Your task to perform on an android device: turn off smart reply in the gmail app Image 0: 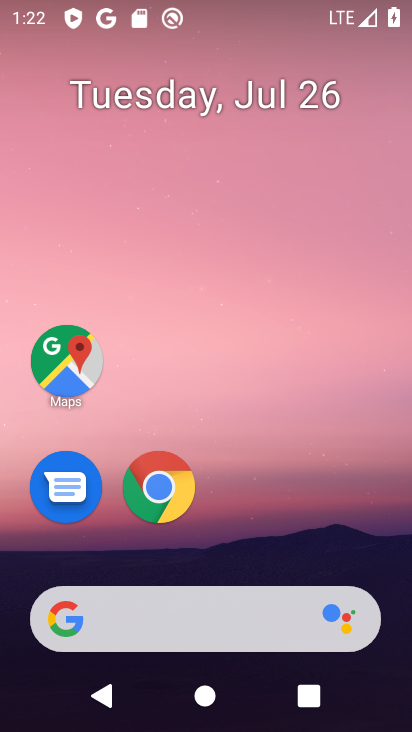
Step 0: drag from (123, 641) to (94, 3)
Your task to perform on an android device: turn off smart reply in the gmail app Image 1: 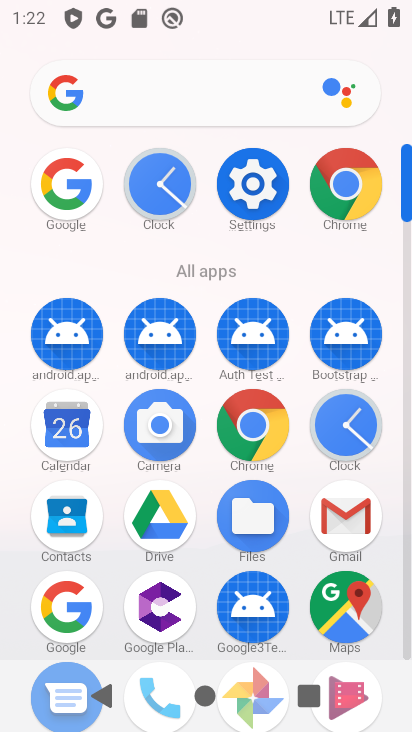
Step 1: click (341, 514)
Your task to perform on an android device: turn off smart reply in the gmail app Image 2: 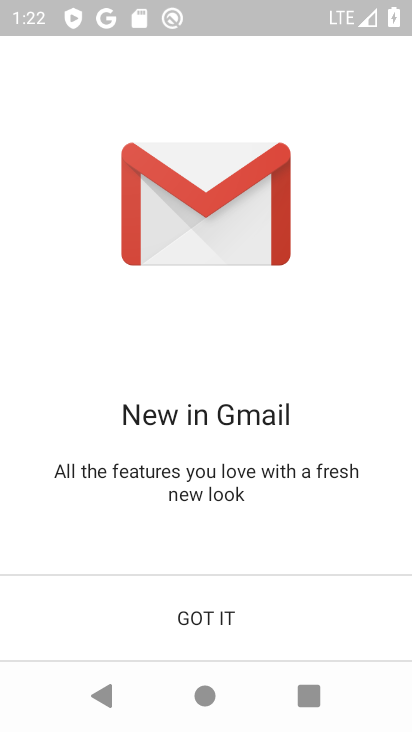
Step 2: click (265, 622)
Your task to perform on an android device: turn off smart reply in the gmail app Image 3: 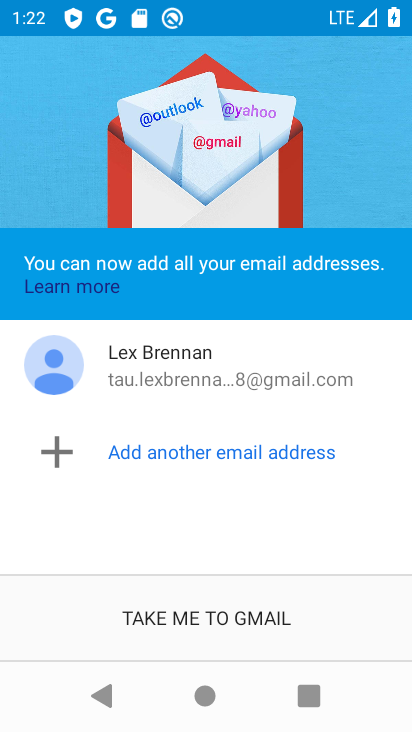
Step 3: click (264, 628)
Your task to perform on an android device: turn off smart reply in the gmail app Image 4: 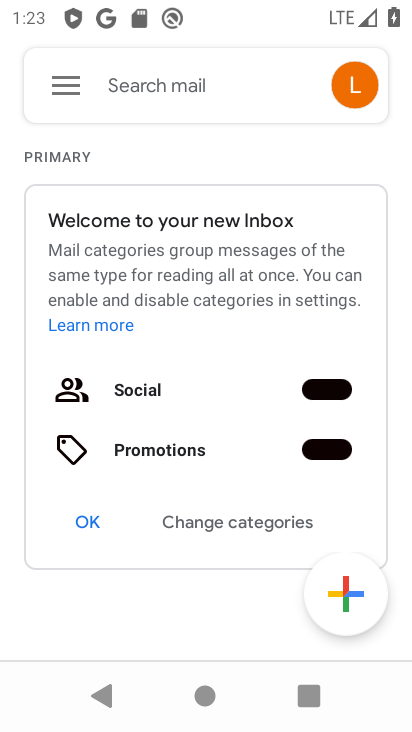
Step 4: click (73, 95)
Your task to perform on an android device: turn off smart reply in the gmail app Image 5: 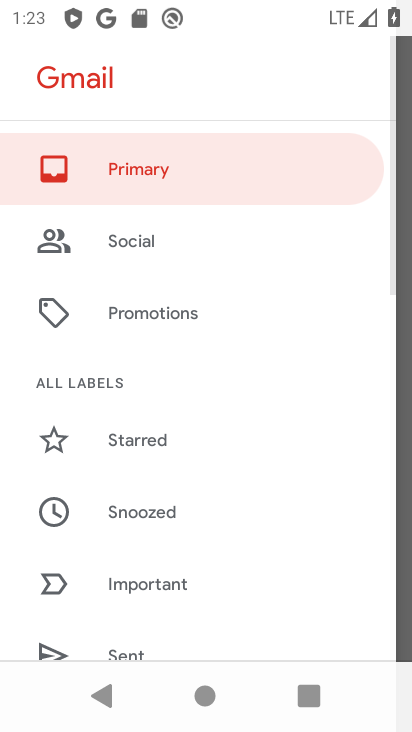
Step 5: drag from (165, 539) to (185, 203)
Your task to perform on an android device: turn off smart reply in the gmail app Image 6: 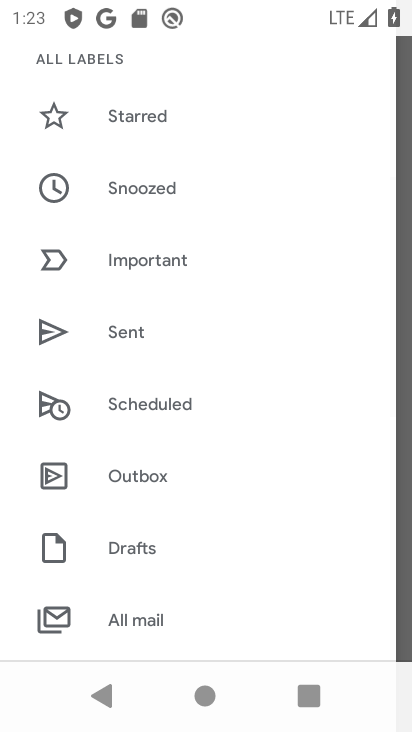
Step 6: drag from (167, 522) to (179, 176)
Your task to perform on an android device: turn off smart reply in the gmail app Image 7: 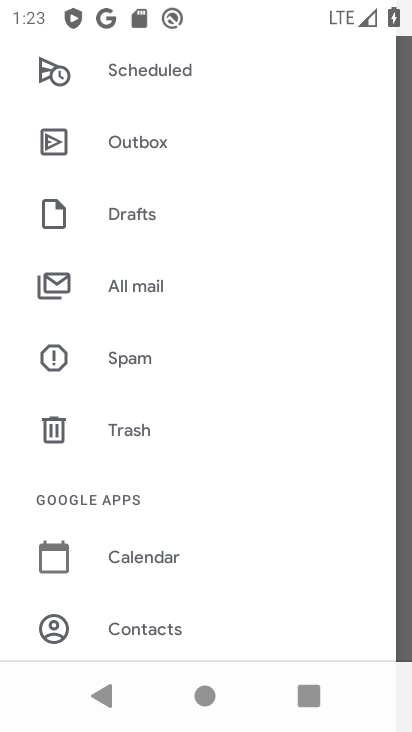
Step 7: drag from (172, 525) to (180, 200)
Your task to perform on an android device: turn off smart reply in the gmail app Image 8: 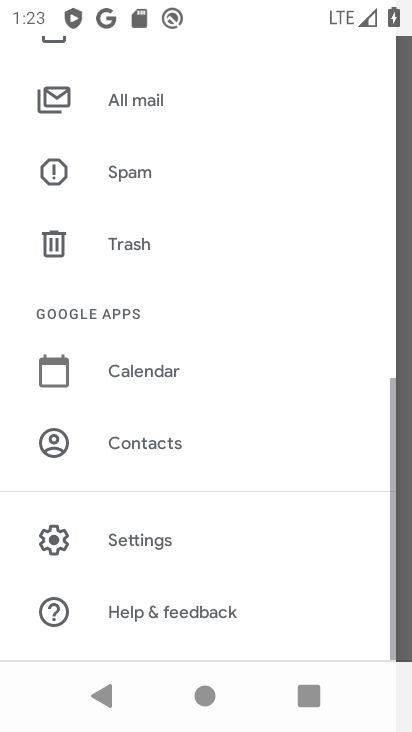
Step 8: click (133, 548)
Your task to perform on an android device: turn off smart reply in the gmail app Image 9: 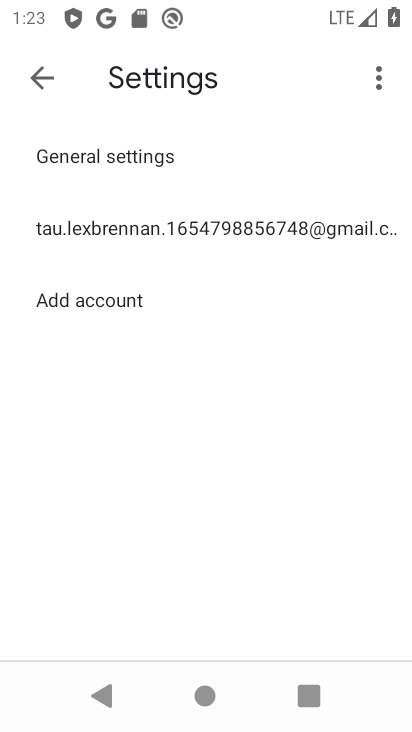
Step 9: click (212, 230)
Your task to perform on an android device: turn off smart reply in the gmail app Image 10: 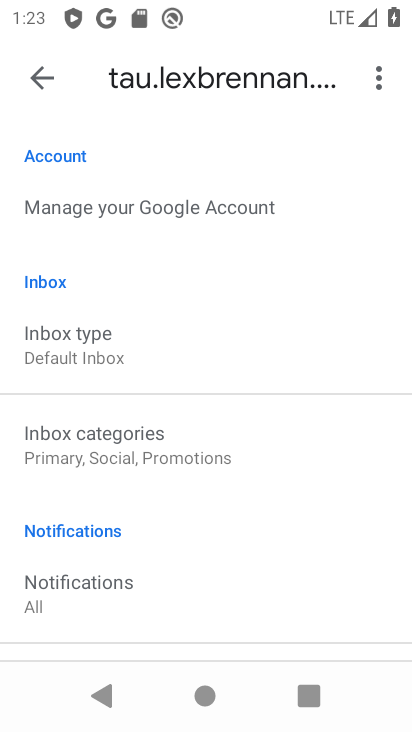
Step 10: drag from (126, 460) to (126, 326)
Your task to perform on an android device: turn off smart reply in the gmail app Image 11: 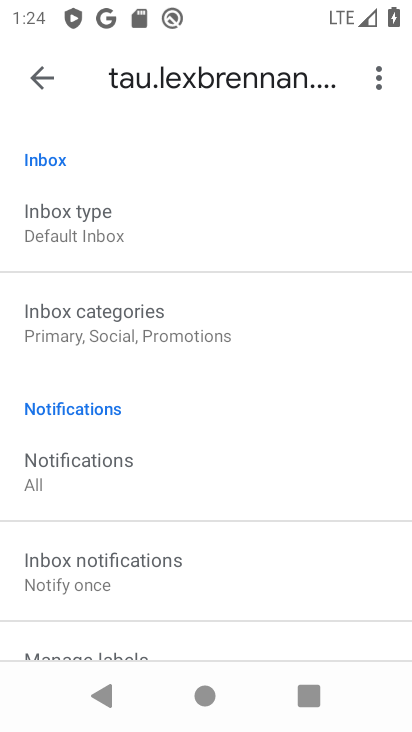
Step 11: drag from (172, 532) to (188, 230)
Your task to perform on an android device: turn off smart reply in the gmail app Image 12: 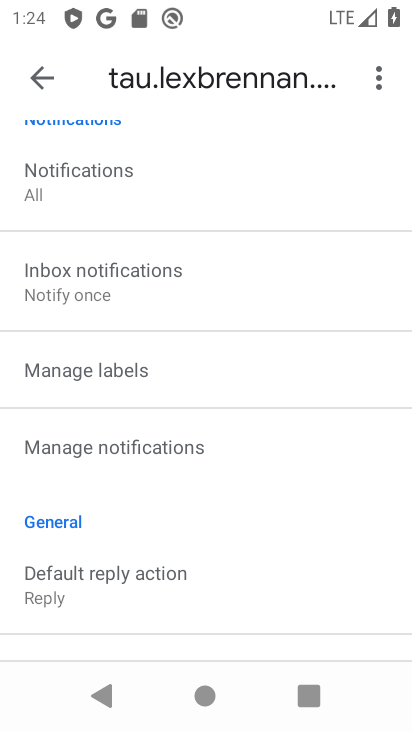
Step 12: drag from (186, 559) to (184, 296)
Your task to perform on an android device: turn off smart reply in the gmail app Image 13: 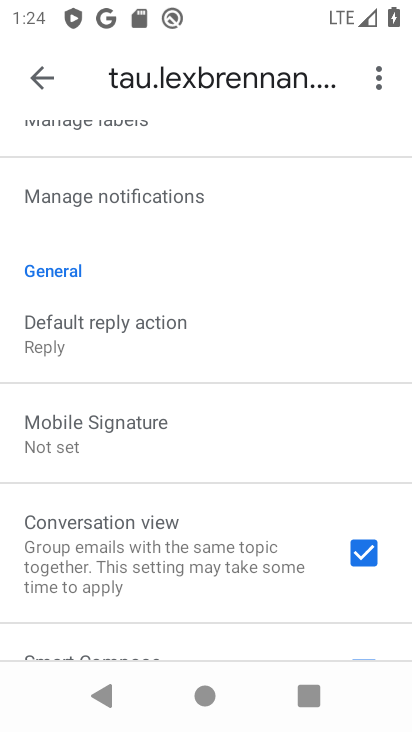
Step 13: drag from (166, 569) to (202, 211)
Your task to perform on an android device: turn off smart reply in the gmail app Image 14: 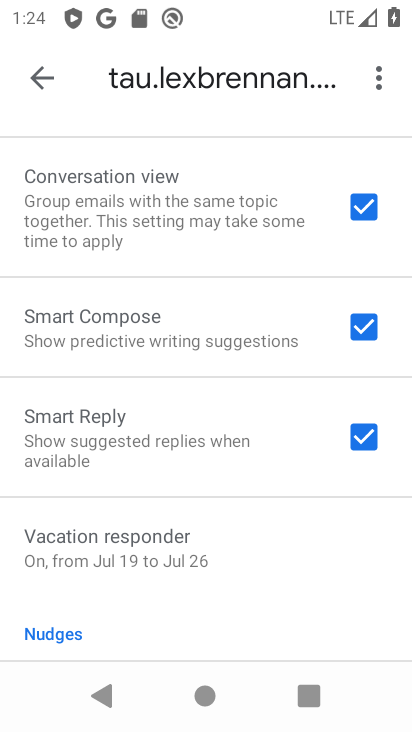
Step 14: click (363, 449)
Your task to perform on an android device: turn off smart reply in the gmail app Image 15: 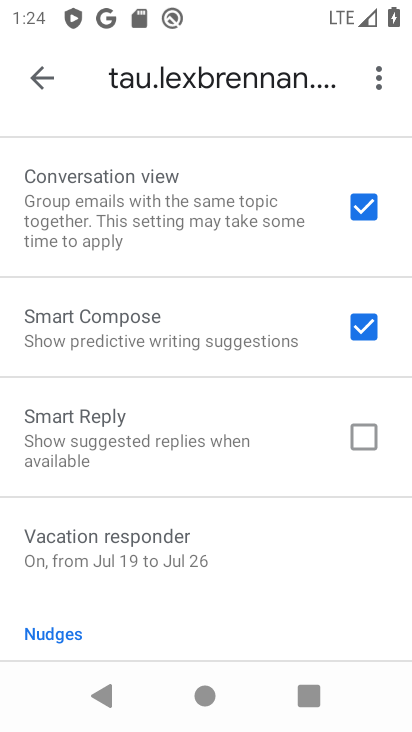
Step 15: task complete